Your task to perform on an android device: Open calendar and show me the third week of next month Image 0: 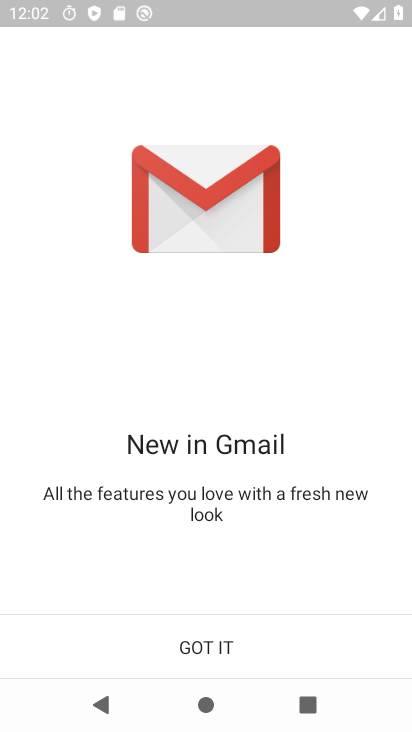
Step 0: press home button
Your task to perform on an android device: Open calendar and show me the third week of next month Image 1: 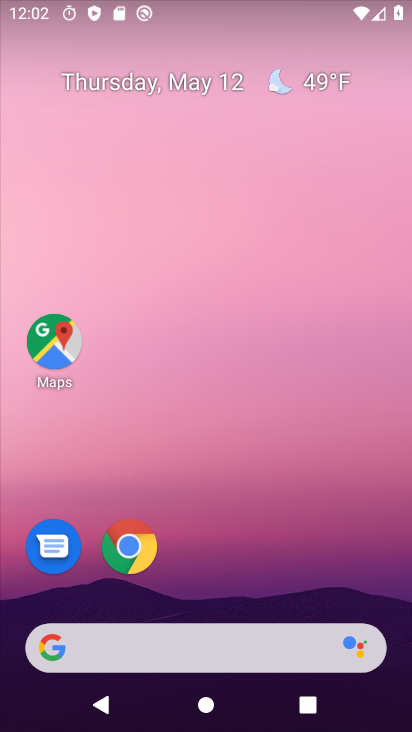
Step 1: drag from (144, 614) to (187, 163)
Your task to perform on an android device: Open calendar and show me the third week of next month Image 2: 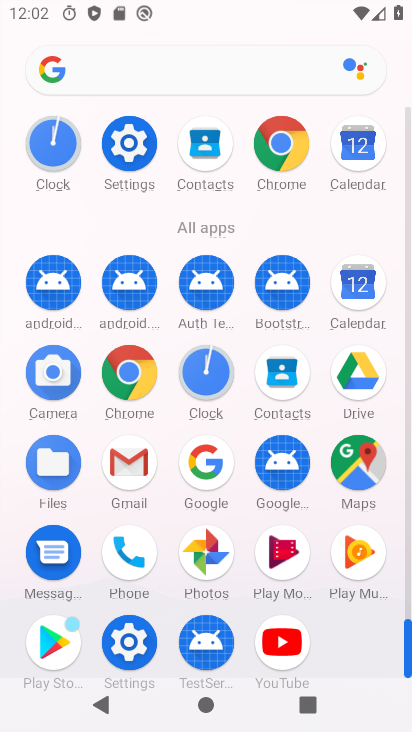
Step 2: click (357, 304)
Your task to perform on an android device: Open calendar and show me the third week of next month Image 3: 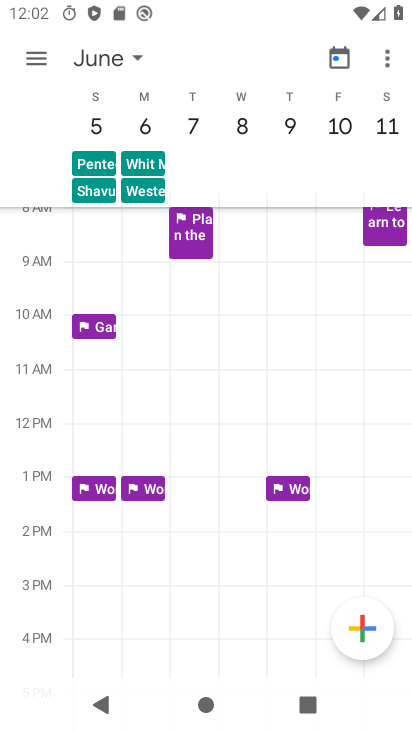
Step 3: click (125, 61)
Your task to perform on an android device: Open calendar and show me the third week of next month Image 4: 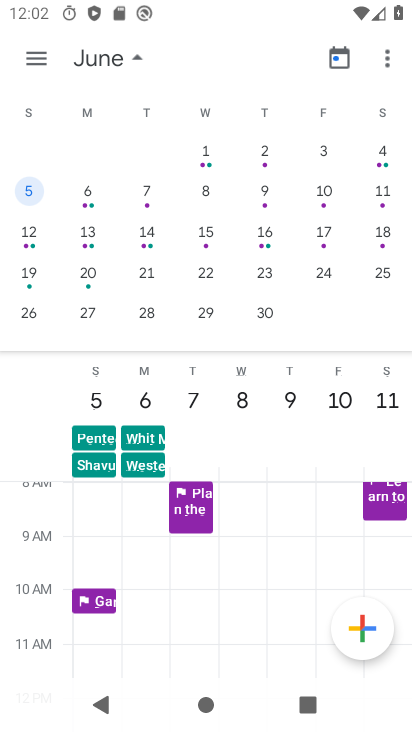
Step 4: click (34, 275)
Your task to perform on an android device: Open calendar and show me the third week of next month Image 5: 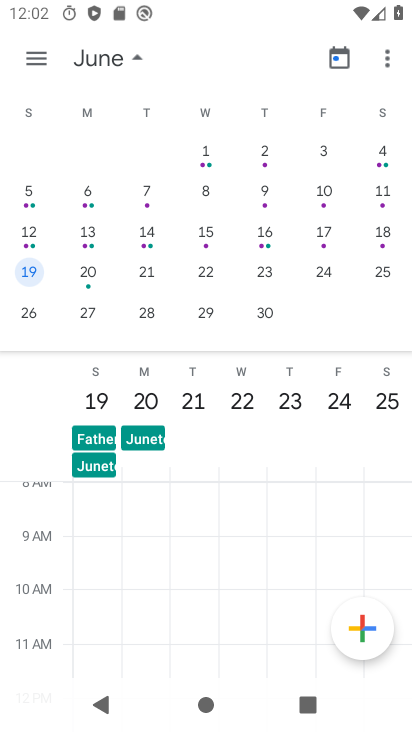
Step 5: click (41, 73)
Your task to perform on an android device: Open calendar and show me the third week of next month Image 6: 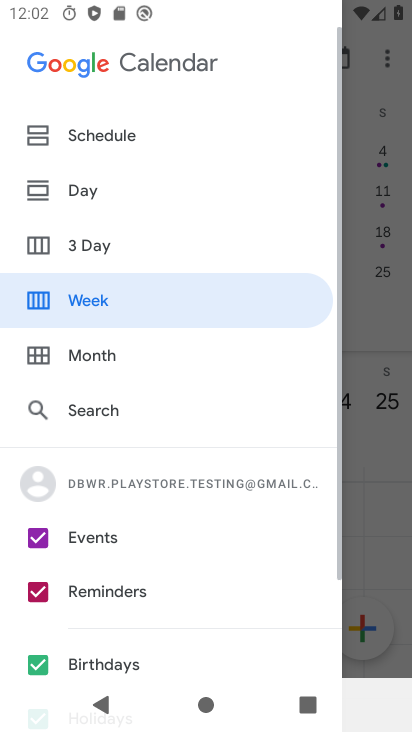
Step 6: click (119, 294)
Your task to perform on an android device: Open calendar and show me the third week of next month Image 7: 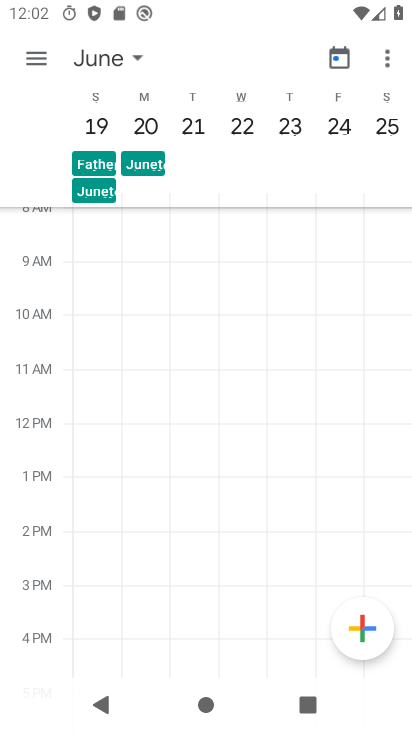
Step 7: task complete